Your task to perform on an android device: set default search engine in the chrome app Image 0: 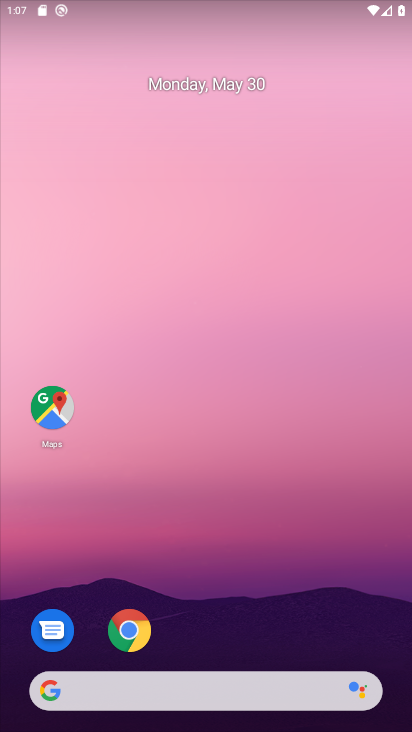
Step 0: press home button
Your task to perform on an android device: set default search engine in the chrome app Image 1: 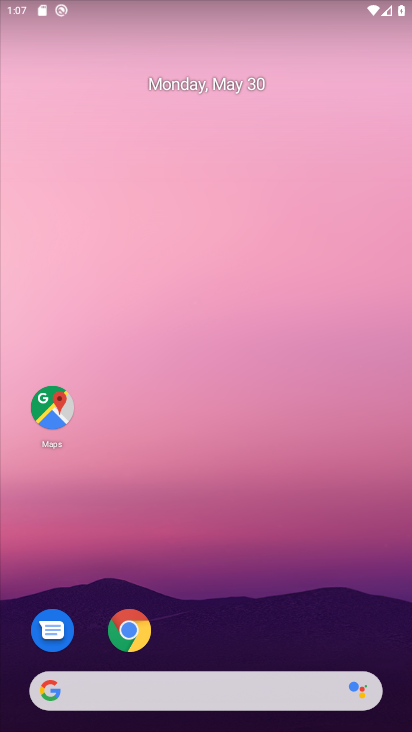
Step 1: click (141, 632)
Your task to perform on an android device: set default search engine in the chrome app Image 2: 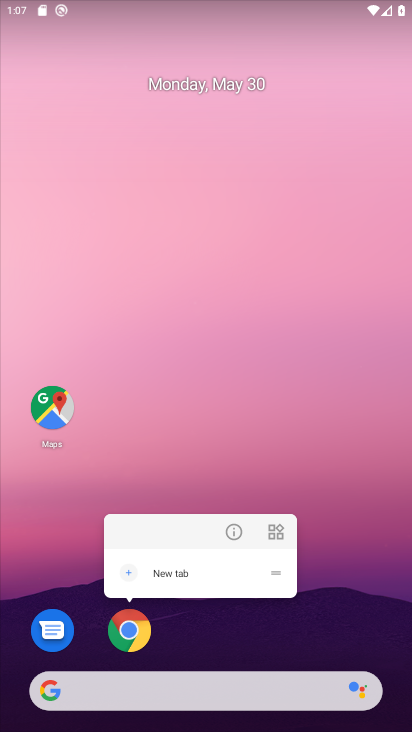
Step 2: click (136, 633)
Your task to perform on an android device: set default search engine in the chrome app Image 3: 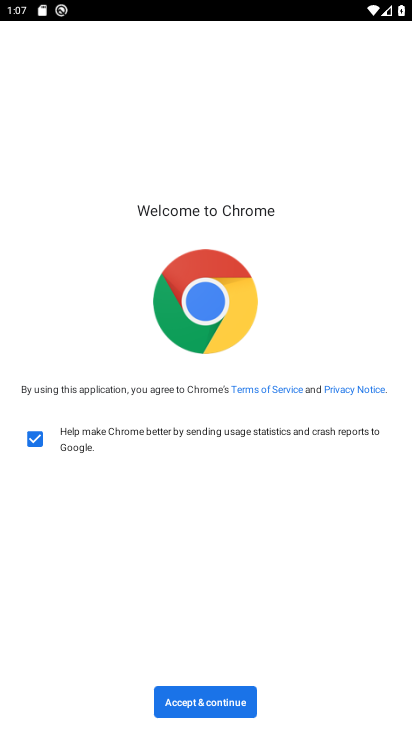
Step 3: click (197, 716)
Your task to perform on an android device: set default search engine in the chrome app Image 4: 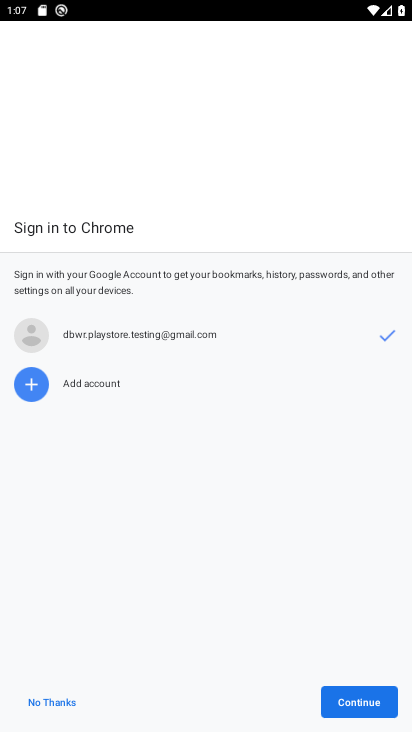
Step 4: click (342, 699)
Your task to perform on an android device: set default search engine in the chrome app Image 5: 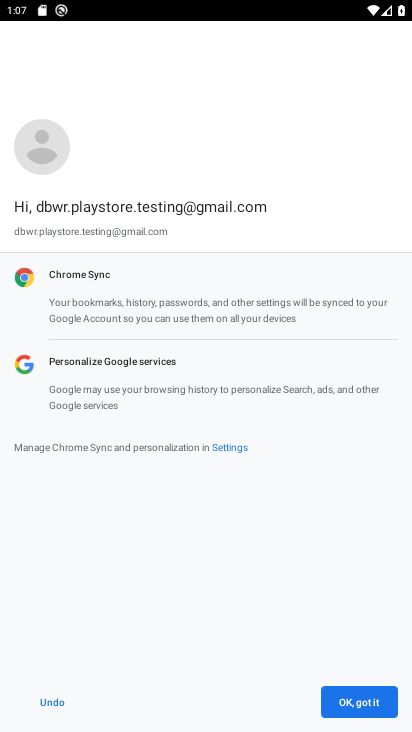
Step 5: click (342, 699)
Your task to perform on an android device: set default search engine in the chrome app Image 6: 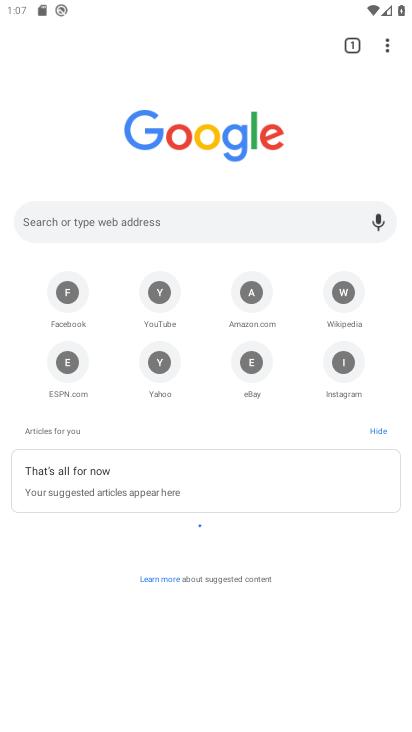
Step 6: drag from (384, 49) to (247, 388)
Your task to perform on an android device: set default search engine in the chrome app Image 7: 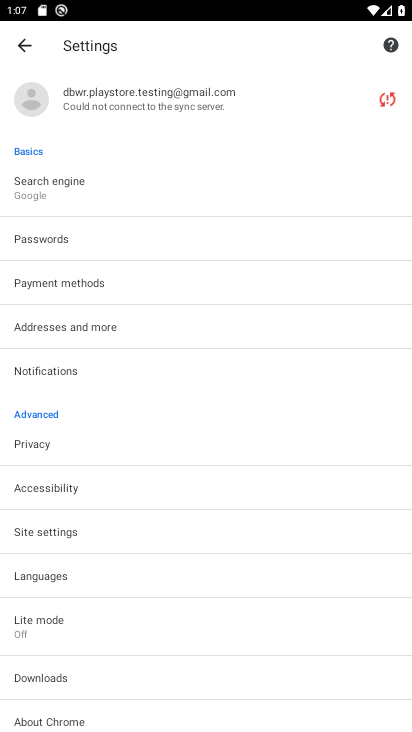
Step 7: click (65, 199)
Your task to perform on an android device: set default search engine in the chrome app Image 8: 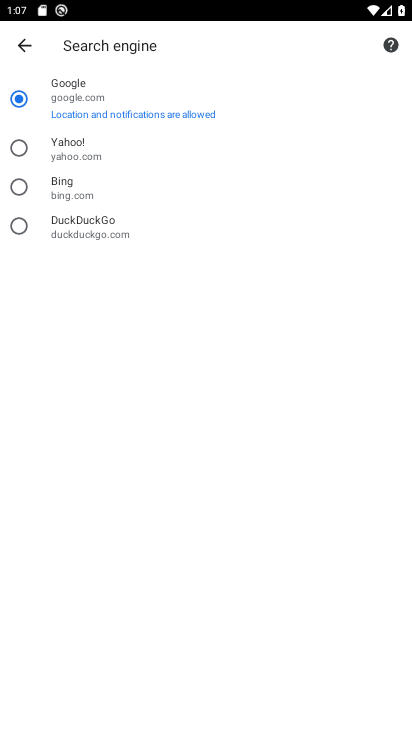
Step 8: click (20, 147)
Your task to perform on an android device: set default search engine in the chrome app Image 9: 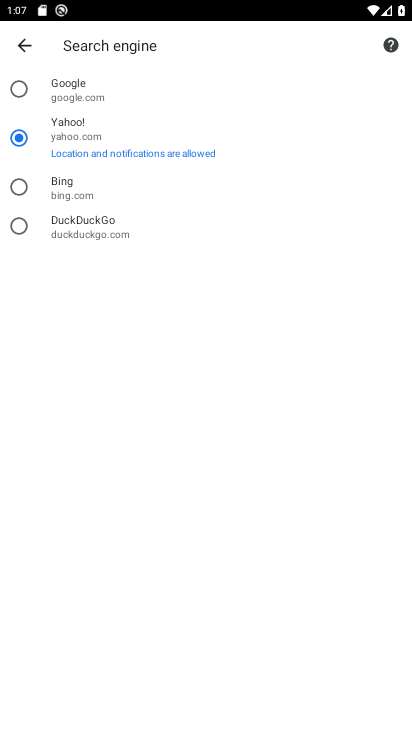
Step 9: task complete